Your task to perform on an android device: Show the shopping cart on walmart.com. Image 0: 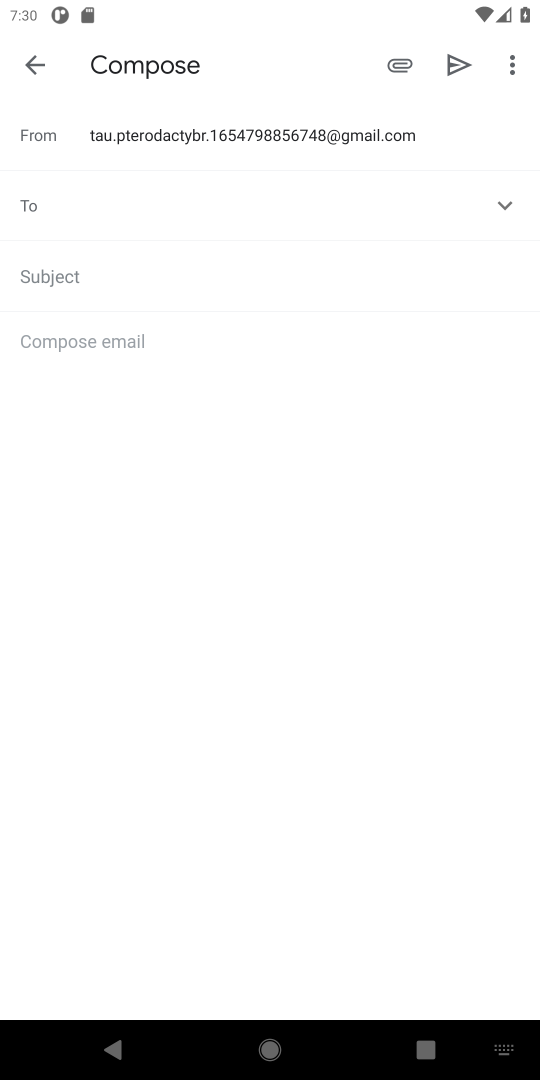
Step 0: press home button
Your task to perform on an android device: Show the shopping cart on walmart.com. Image 1: 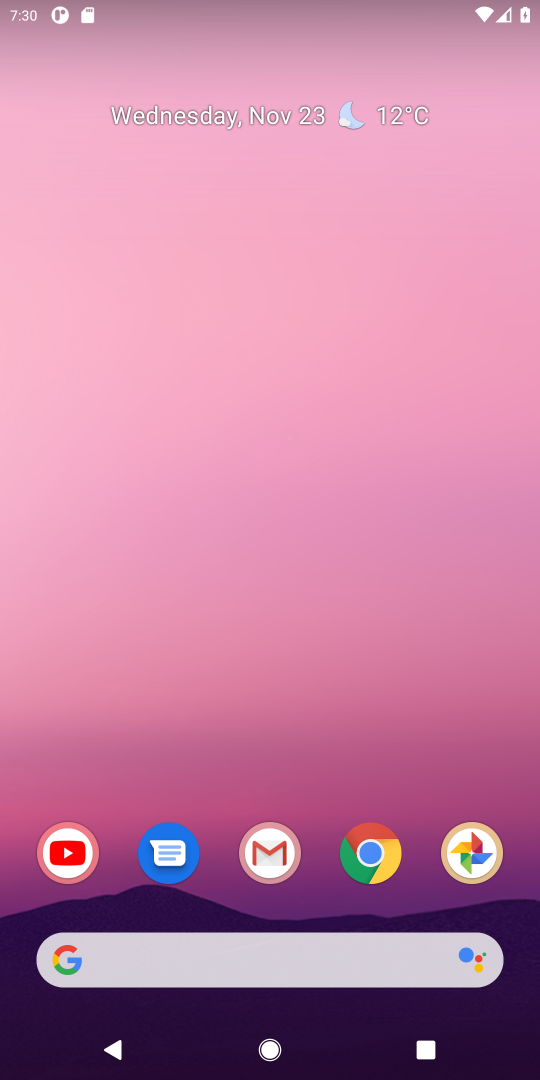
Step 1: click (368, 868)
Your task to perform on an android device: Show the shopping cart on walmart.com. Image 2: 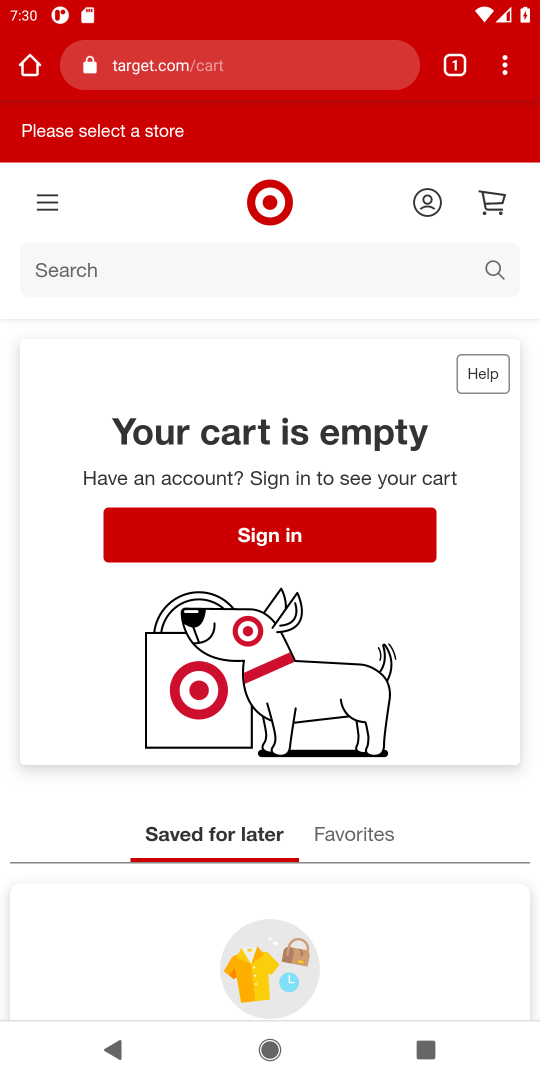
Step 2: click (144, 73)
Your task to perform on an android device: Show the shopping cart on walmart.com. Image 3: 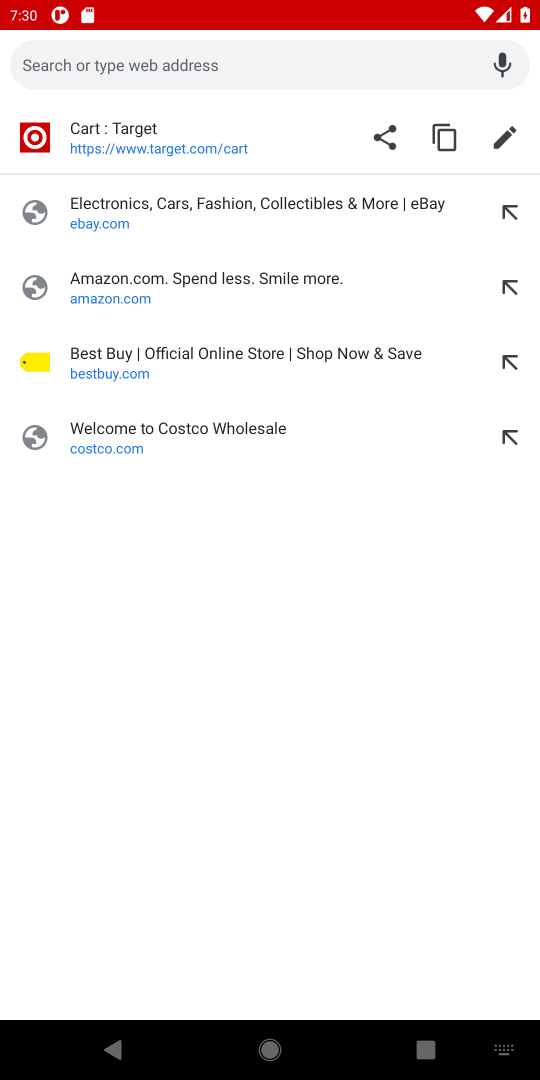
Step 3: type "walmart.com"
Your task to perform on an android device: Show the shopping cart on walmart.com. Image 4: 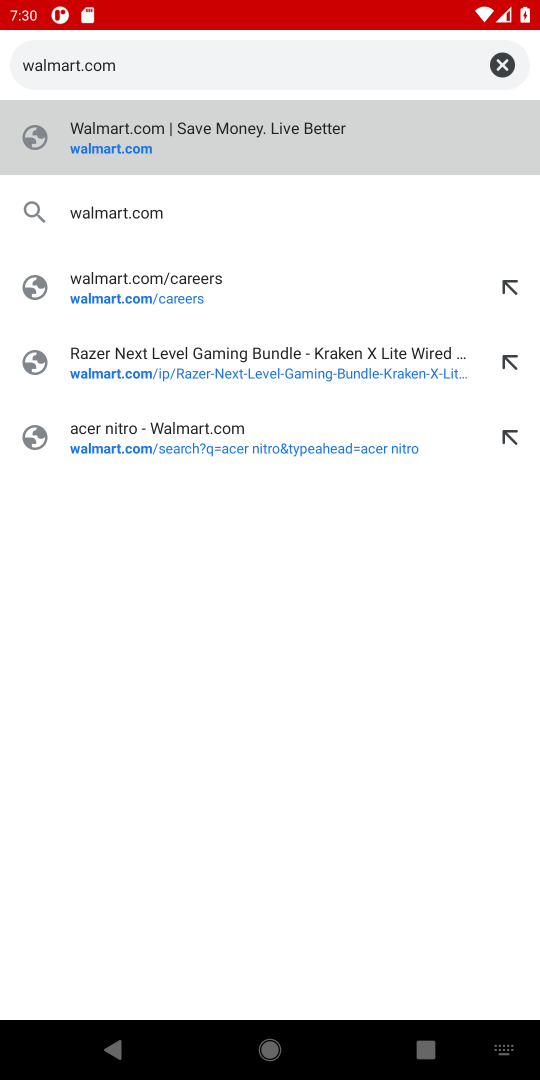
Step 4: click (126, 144)
Your task to perform on an android device: Show the shopping cart on walmart.com. Image 5: 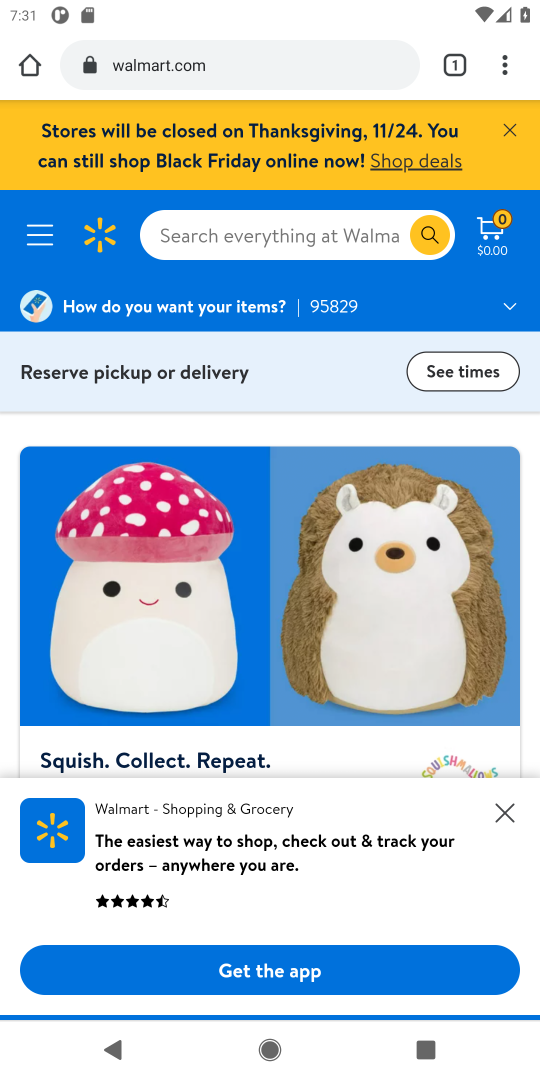
Step 5: click (496, 237)
Your task to perform on an android device: Show the shopping cart on walmart.com. Image 6: 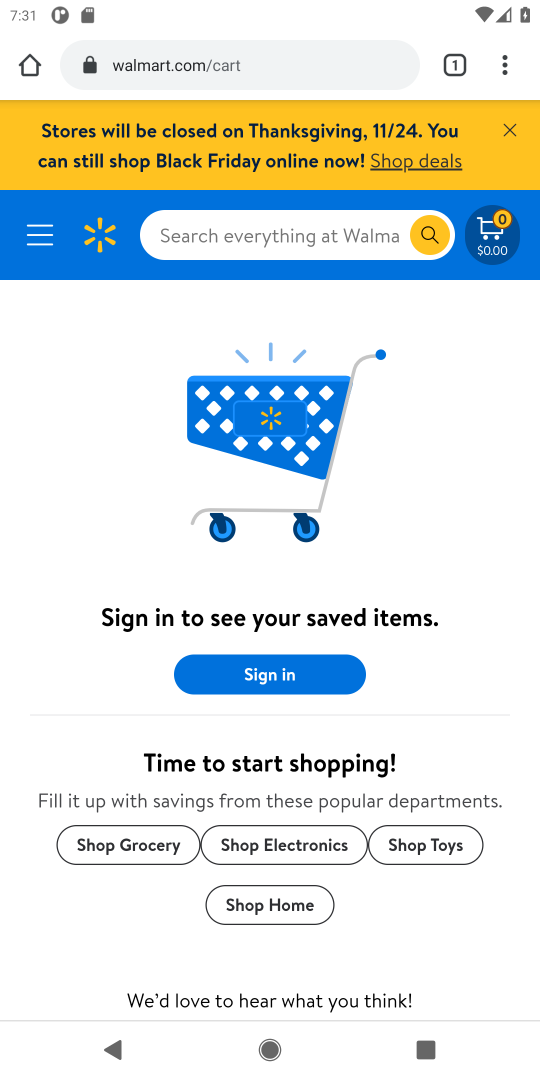
Step 6: task complete